Your task to perform on an android device: open app "Mercado Libre" (install if not already installed) Image 0: 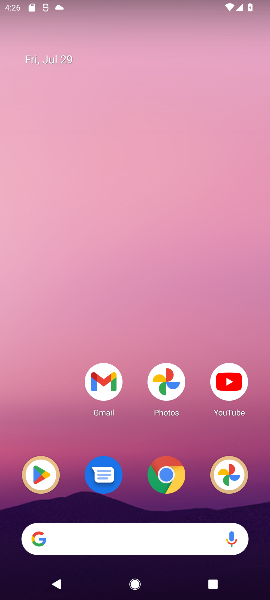
Step 0: click (49, 475)
Your task to perform on an android device: open app "Mercado Libre" (install if not already installed) Image 1: 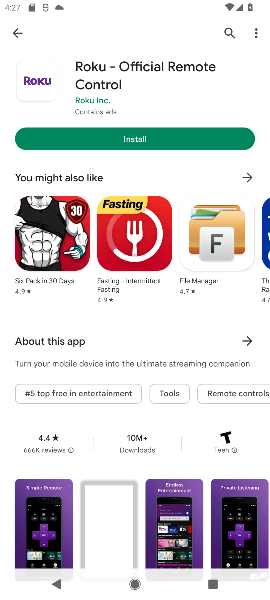
Step 1: press home button
Your task to perform on an android device: open app "Mercado Libre" (install if not already installed) Image 2: 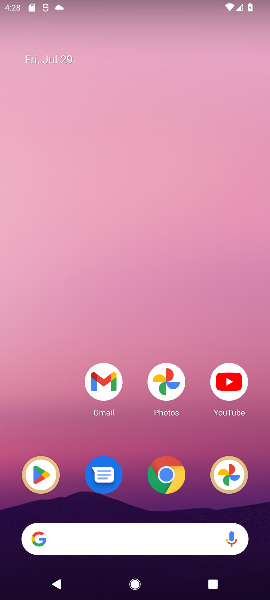
Step 2: click (193, 443)
Your task to perform on an android device: open app "Mercado Libre" (install if not already installed) Image 3: 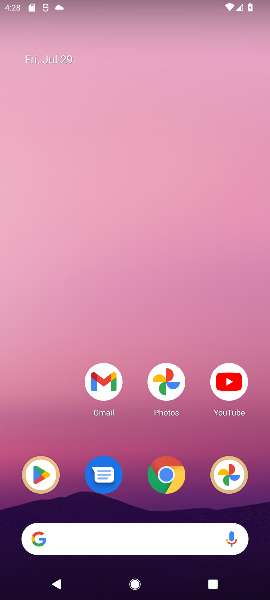
Step 3: click (43, 477)
Your task to perform on an android device: open app "Mercado Libre" (install if not already installed) Image 4: 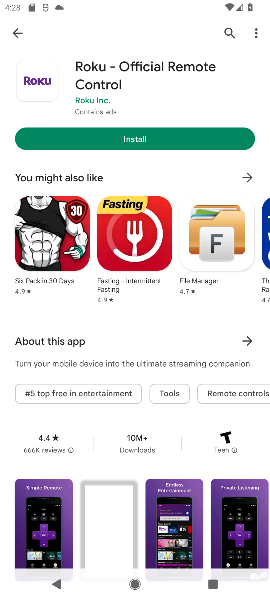
Step 4: click (223, 27)
Your task to perform on an android device: open app "Mercado Libre" (install if not already installed) Image 5: 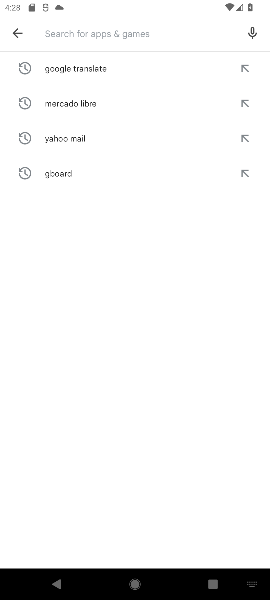
Step 5: type "Mercado Libre"
Your task to perform on an android device: open app "Mercado Libre" (install if not already installed) Image 6: 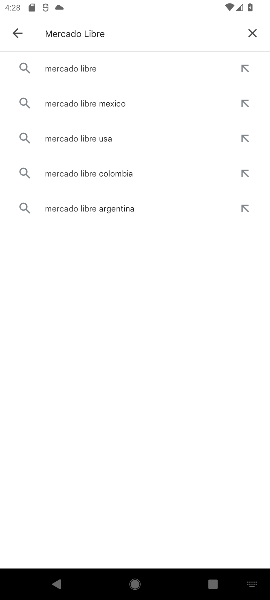
Step 6: click (60, 71)
Your task to perform on an android device: open app "Mercado Libre" (install if not already installed) Image 7: 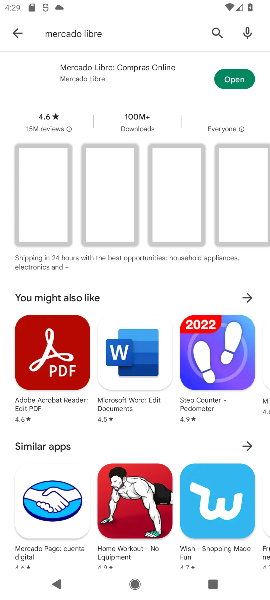
Step 7: click (50, 73)
Your task to perform on an android device: open app "Mercado Libre" (install if not already installed) Image 8: 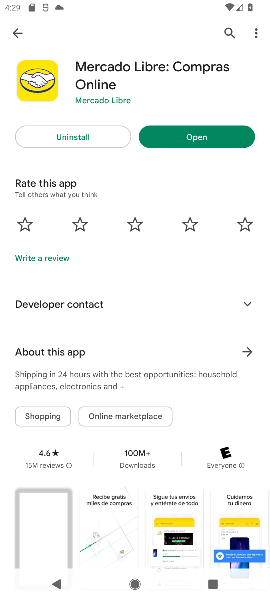
Step 8: click (180, 142)
Your task to perform on an android device: open app "Mercado Libre" (install if not already installed) Image 9: 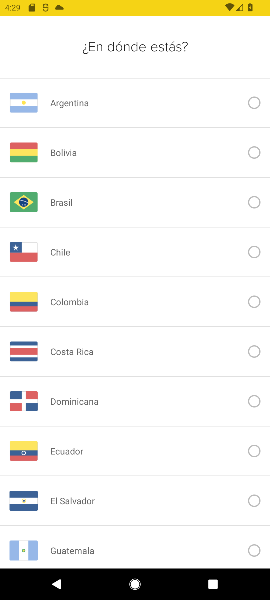
Step 9: task complete